Your task to perform on an android device: What's the news this evening? Image 0: 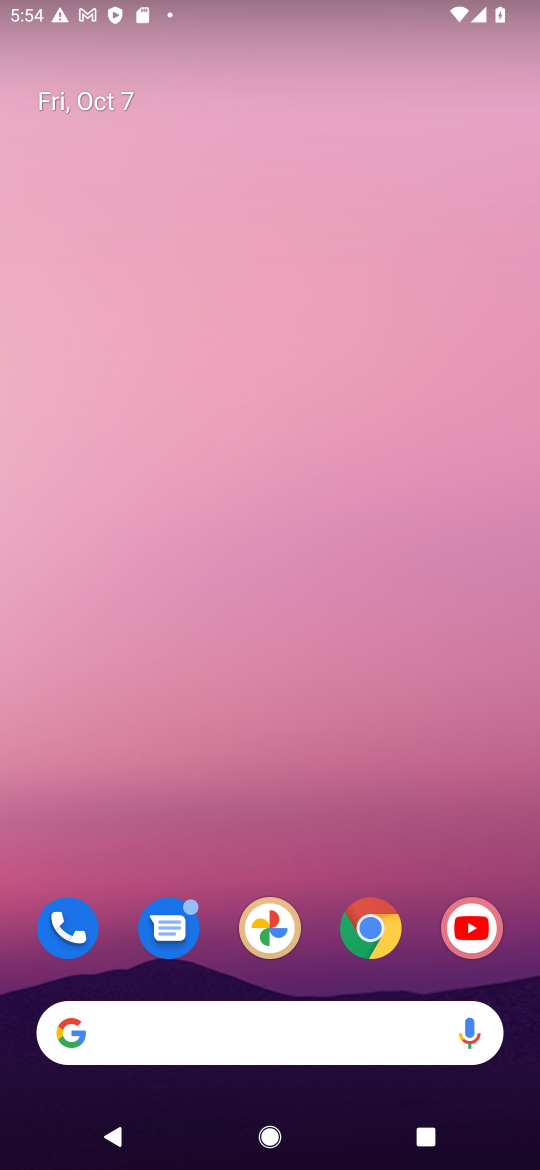
Step 0: drag from (280, 1026) to (281, 125)
Your task to perform on an android device: What's the news this evening? Image 1: 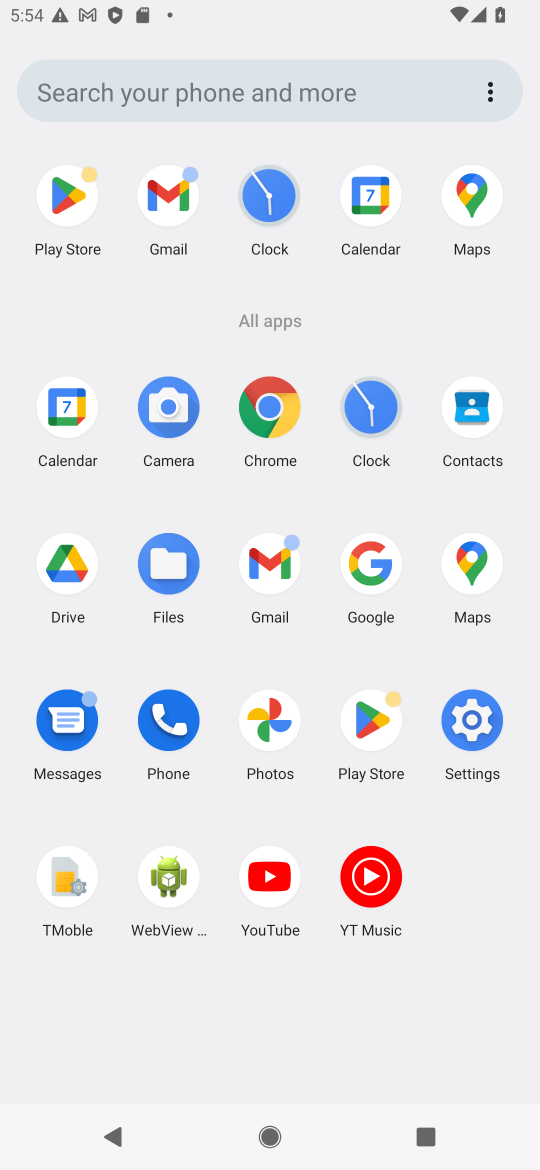
Step 1: click (397, 588)
Your task to perform on an android device: What's the news this evening? Image 2: 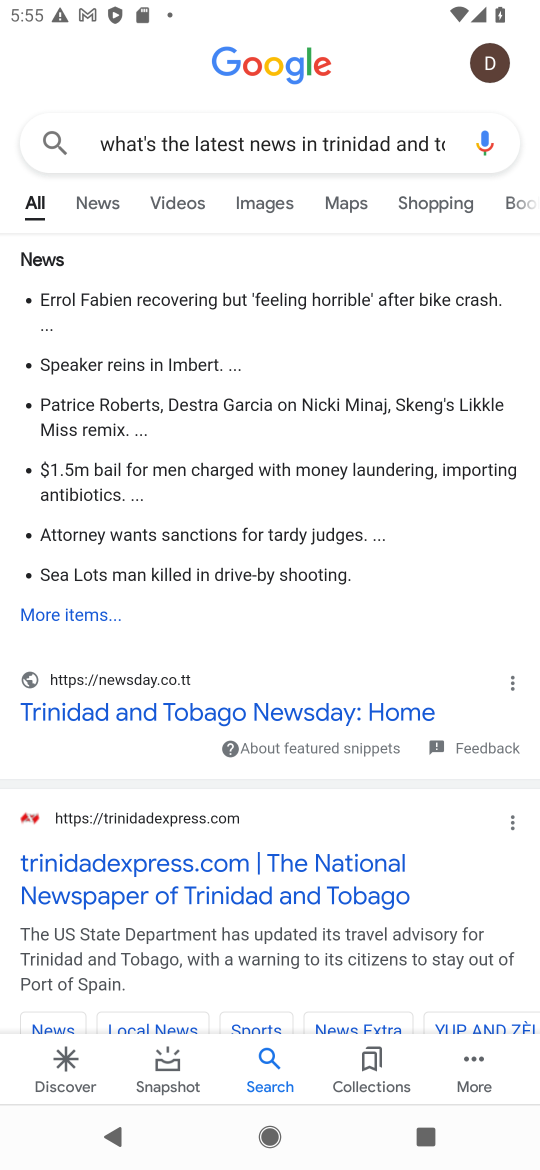
Step 2: click (429, 158)
Your task to perform on an android device: What's the news this evening? Image 3: 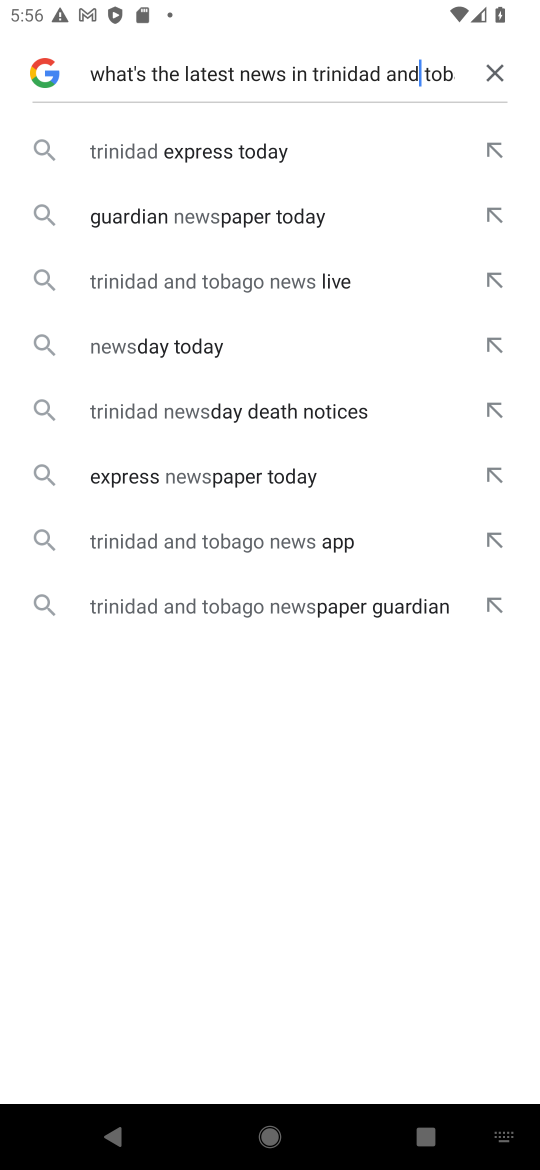
Step 3: click (496, 76)
Your task to perform on an android device: What's the news this evening? Image 4: 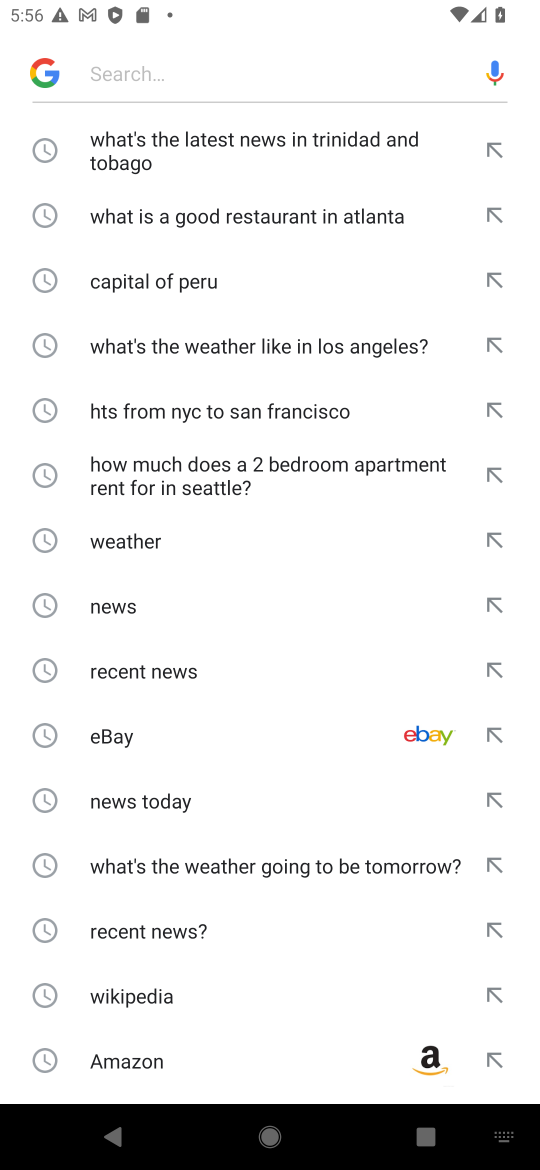
Step 4: type "What's the news this evening?"
Your task to perform on an android device: What's the news this evening? Image 5: 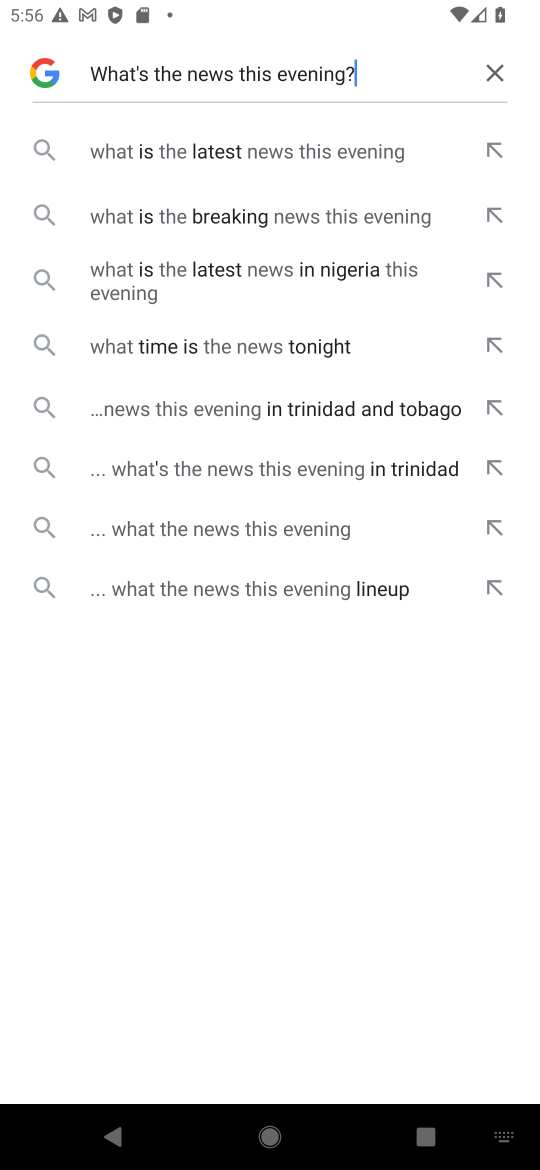
Step 5: click (278, 150)
Your task to perform on an android device: What's the news this evening? Image 6: 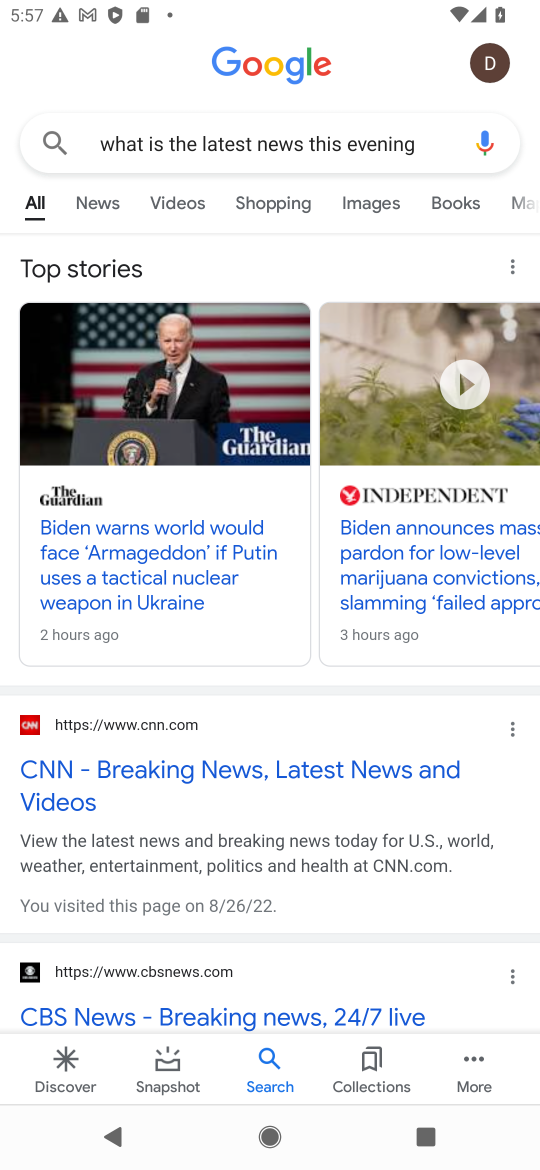
Step 6: task complete